Your task to perform on an android device: Open network settings Image 0: 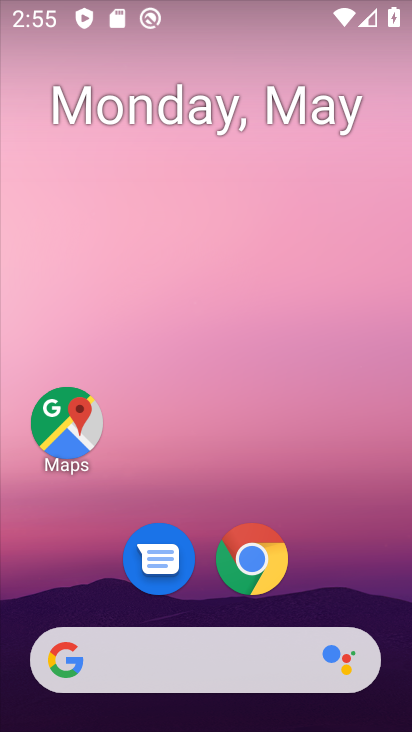
Step 0: drag from (286, 500) to (202, 137)
Your task to perform on an android device: Open network settings Image 1: 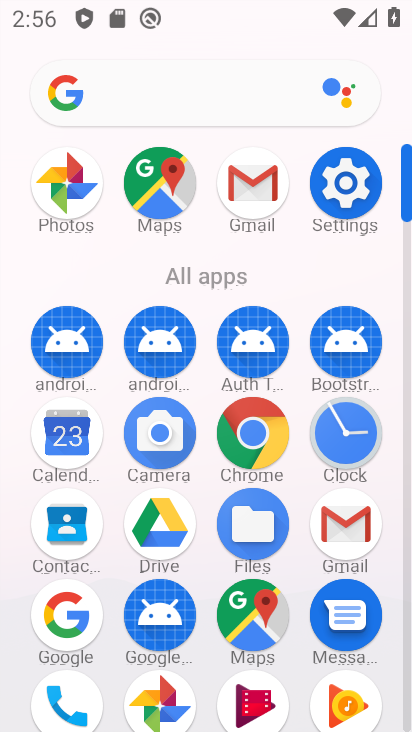
Step 1: click (330, 178)
Your task to perform on an android device: Open network settings Image 2: 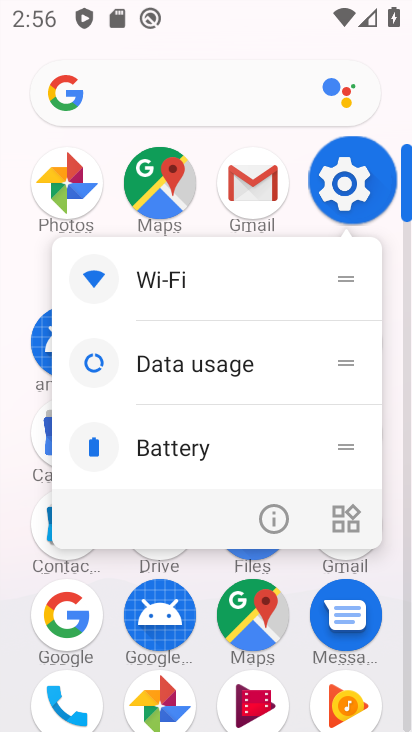
Step 2: click (338, 175)
Your task to perform on an android device: Open network settings Image 3: 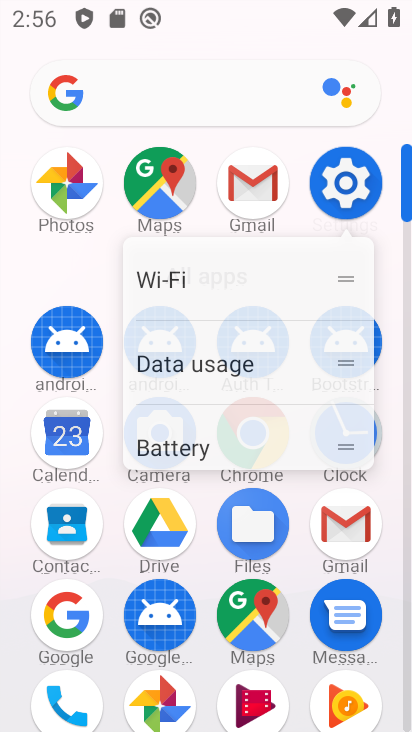
Step 3: click (338, 175)
Your task to perform on an android device: Open network settings Image 4: 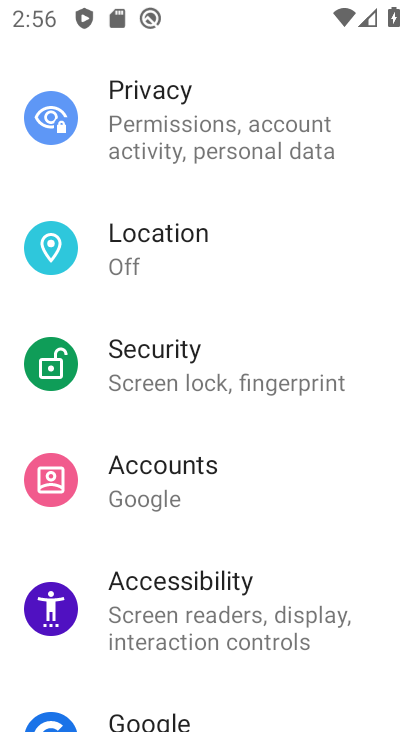
Step 4: click (340, 174)
Your task to perform on an android device: Open network settings Image 5: 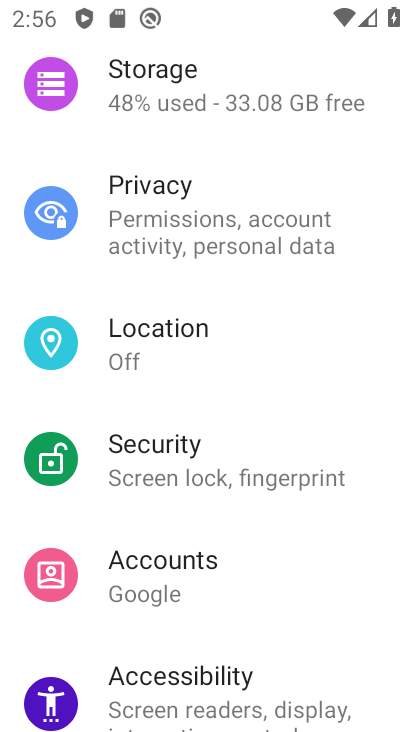
Step 5: drag from (117, 167) to (239, 524)
Your task to perform on an android device: Open network settings Image 6: 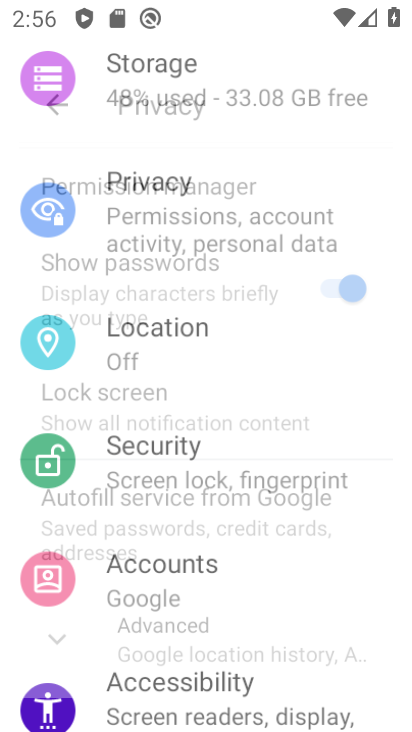
Step 6: click (191, 612)
Your task to perform on an android device: Open network settings Image 7: 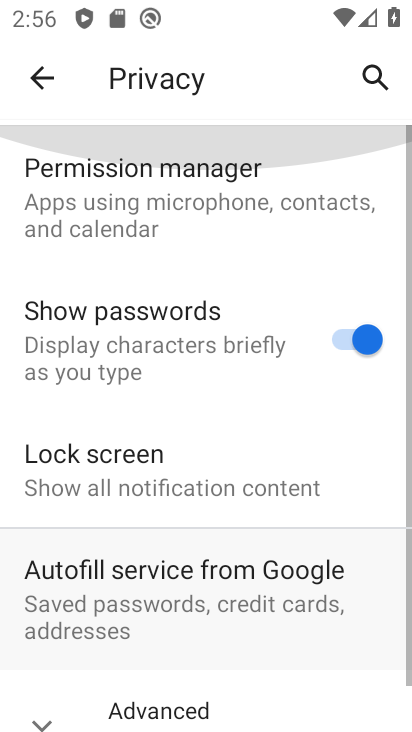
Step 7: drag from (164, 233) to (150, 626)
Your task to perform on an android device: Open network settings Image 8: 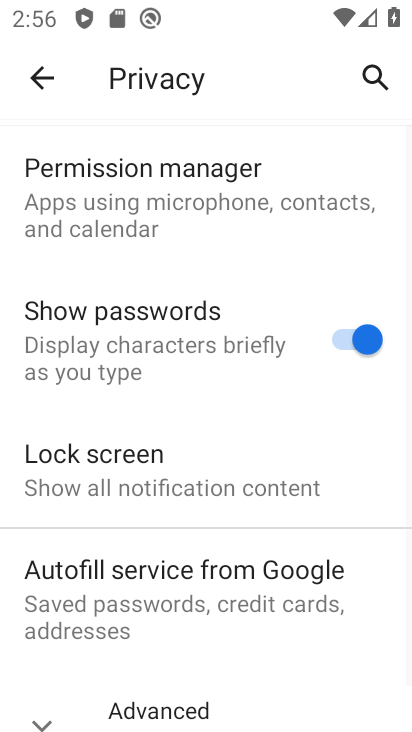
Step 8: click (36, 83)
Your task to perform on an android device: Open network settings Image 9: 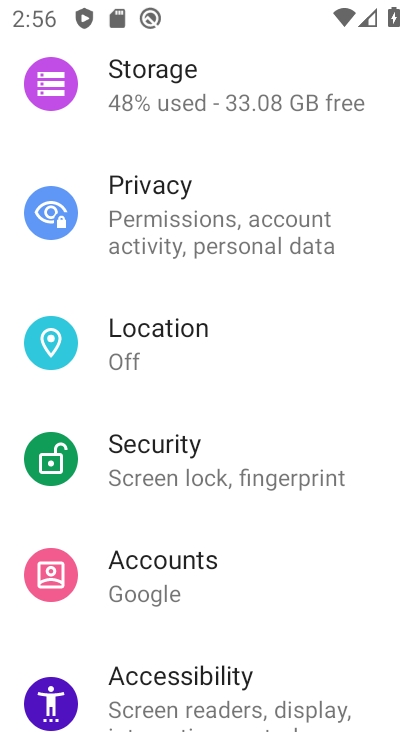
Step 9: drag from (143, 182) to (198, 481)
Your task to perform on an android device: Open network settings Image 10: 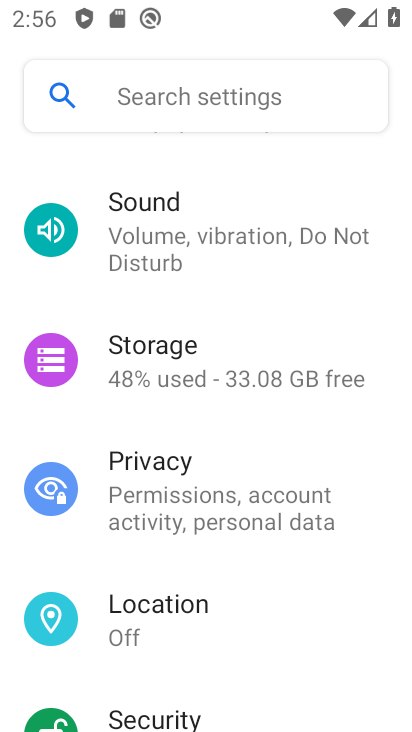
Step 10: drag from (152, 212) to (160, 549)
Your task to perform on an android device: Open network settings Image 11: 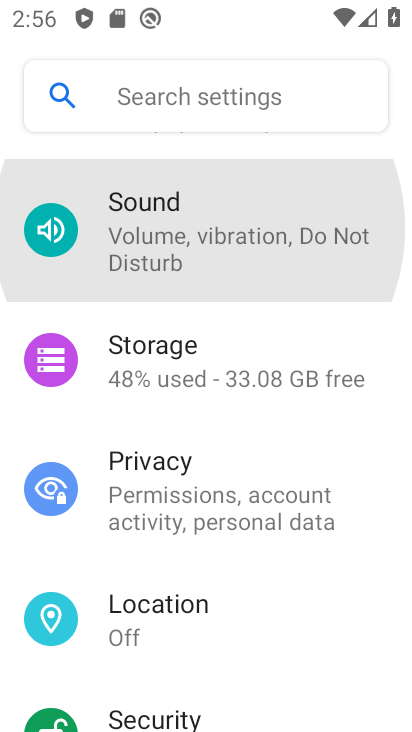
Step 11: drag from (128, 166) to (171, 698)
Your task to perform on an android device: Open network settings Image 12: 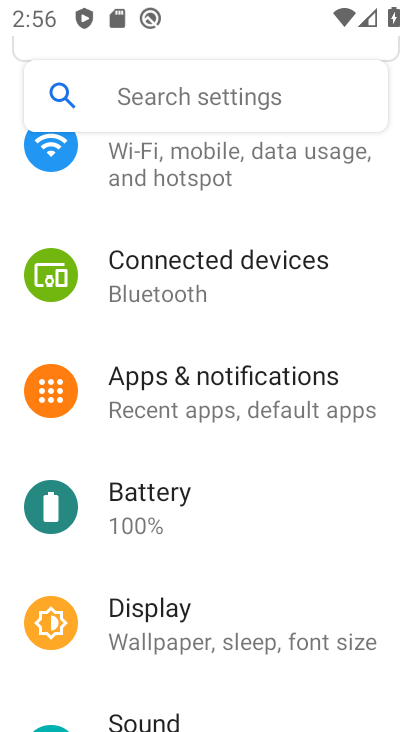
Step 12: drag from (211, 276) to (242, 529)
Your task to perform on an android device: Open network settings Image 13: 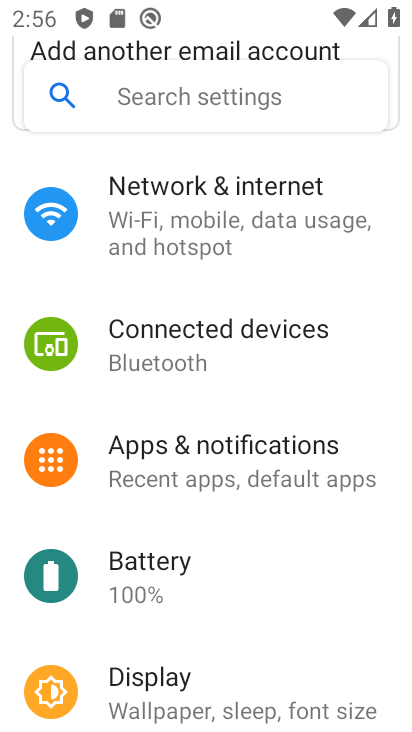
Step 13: drag from (188, 248) to (260, 584)
Your task to perform on an android device: Open network settings Image 14: 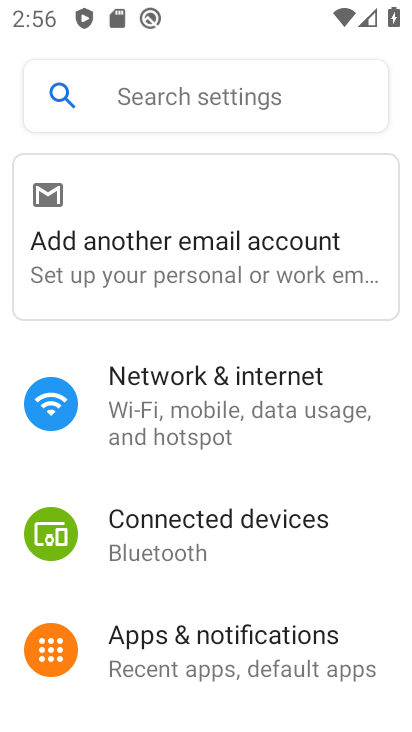
Step 14: click (188, 406)
Your task to perform on an android device: Open network settings Image 15: 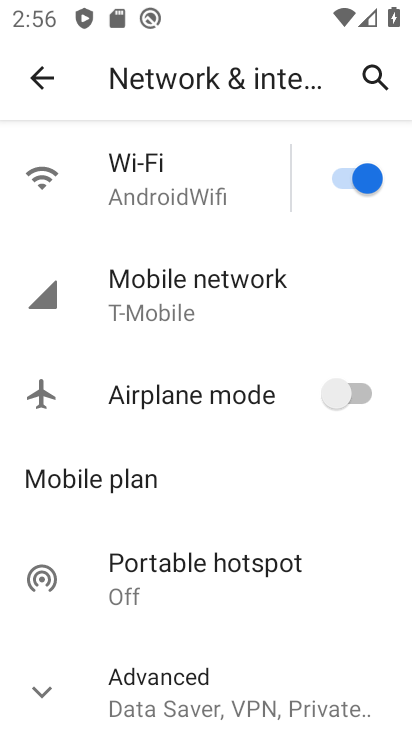
Step 15: task complete